Your task to perform on an android device: change the clock display to analog Image 0: 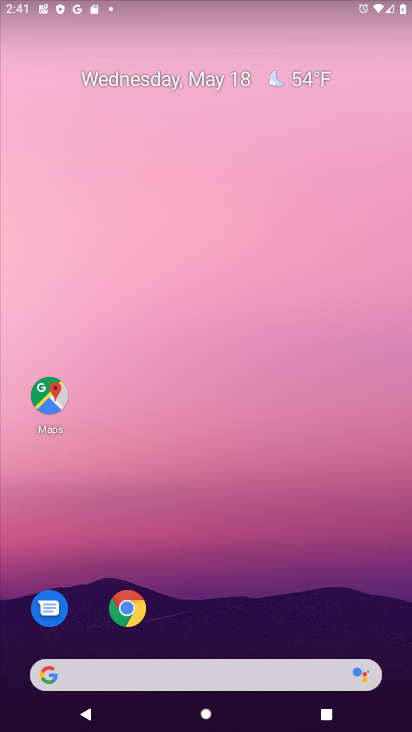
Step 0: drag from (368, 623) to (367, 59)
Your task to perform on an android device: change the clock display to analog Image 1: 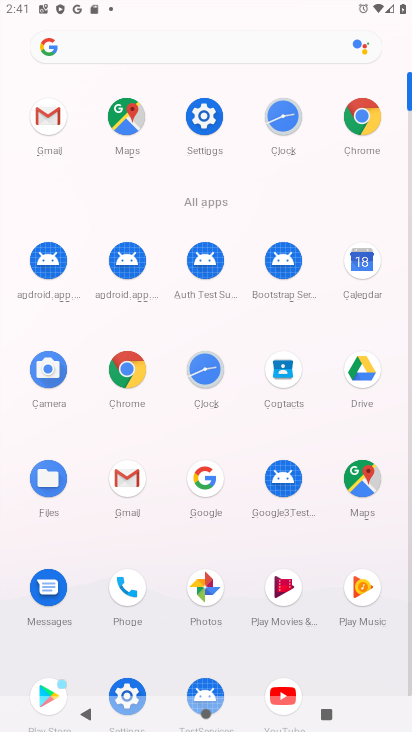
Step 1: click (288, 123)
Your task to perform on an android device: change the clock display to analog Image 2: 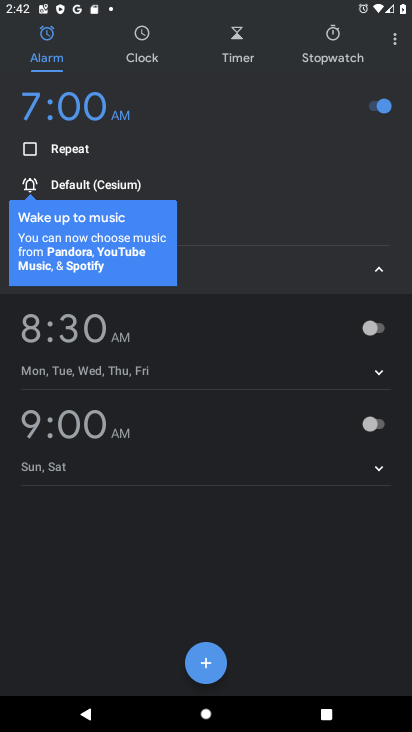
Step 2: click (394, 41)
Your task to perform on an android device: change the clock display to analog Image 3: 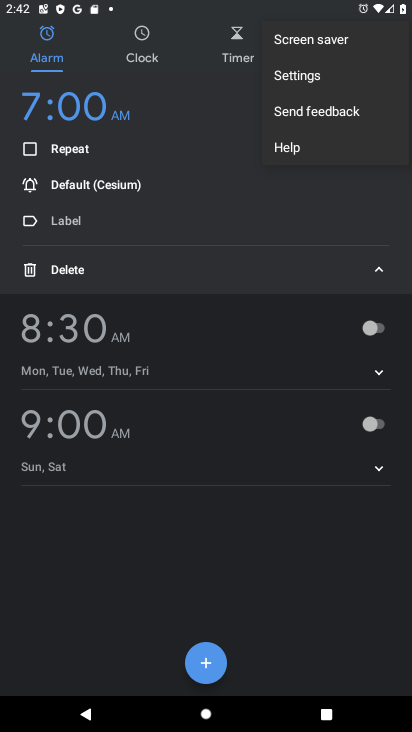
Step 3: click (306, 83)
Your task to perform on an android device: change the clock display to analog Image 4: 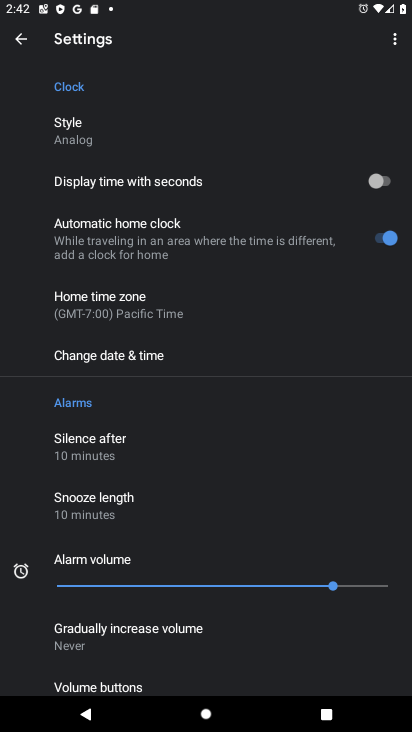
Step 4: task complete